Your task to perform on an android device: star an email in the gmail app Image 0: 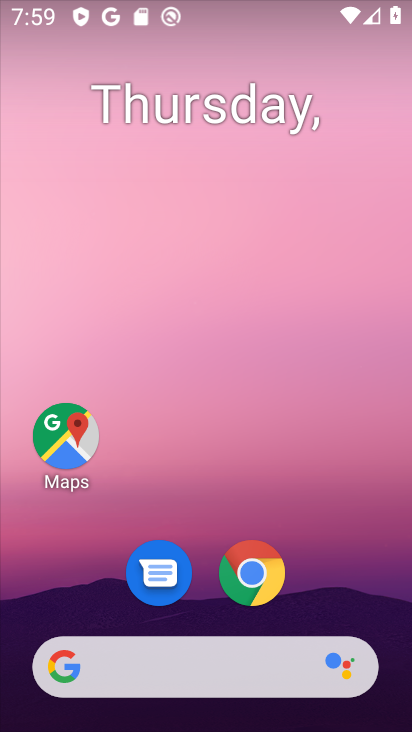
Step 0: drag from (340, 562) to (296, 187)
Your task to perform on an android device: star an email in the gmail app Image 1: 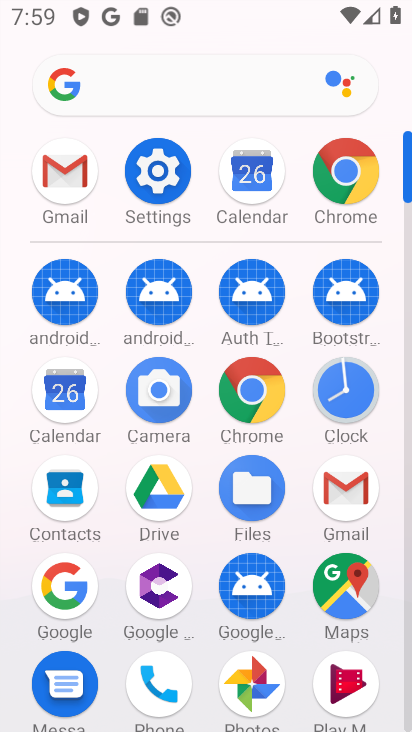
Step 1: click (356, 494)
Your task to perform on an android device: star an email in the gmail app Image 2: 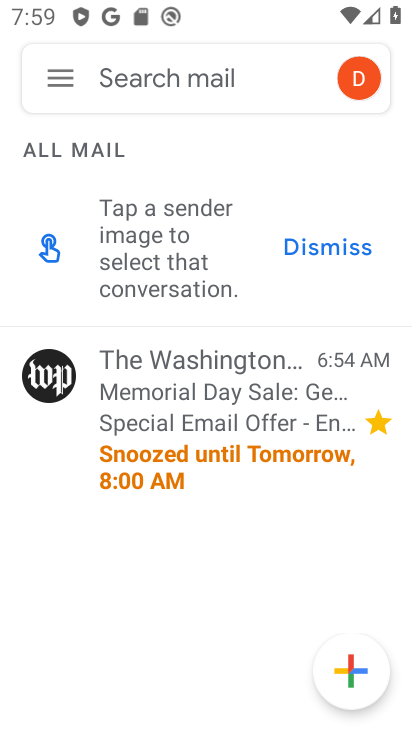
Step 2: click (71, 71)
Your task to perform on an android device: star an email in the gmail app Image 3: 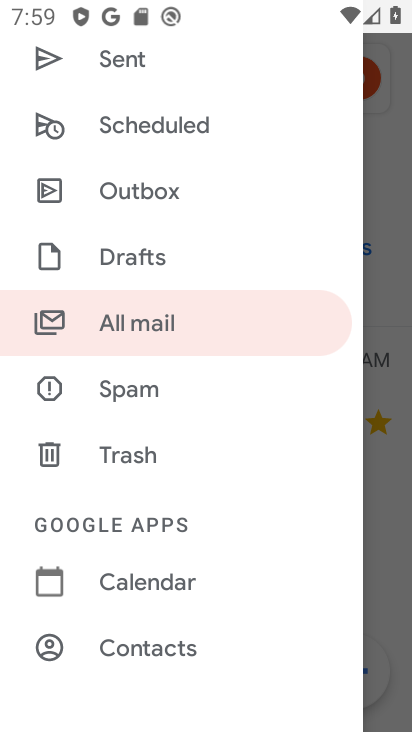
Step 3: drag from (200, 198) to (179, 576)
Your task to perform on an android device: star an email in the gmail app Image 4: 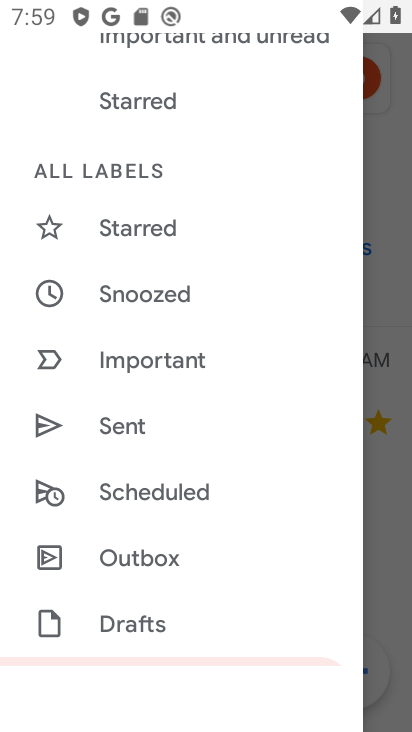
Step 4: click (171, 239)
Your task to perform on an android device: star an email in the gmail app Image 5: 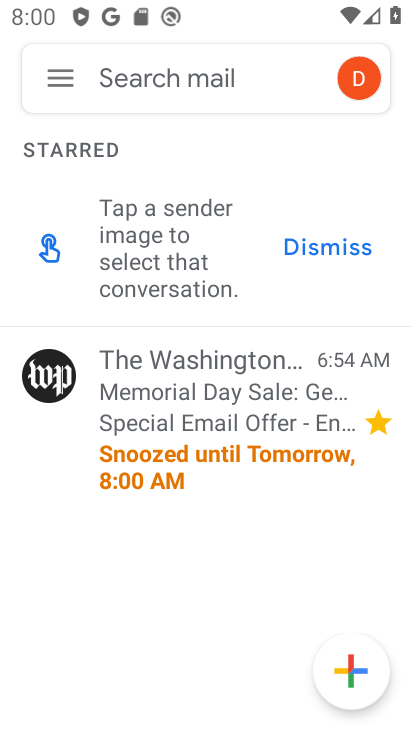
Step 5: task complete